Your task to perform on an android device: Toggle the flashlight Image 0: 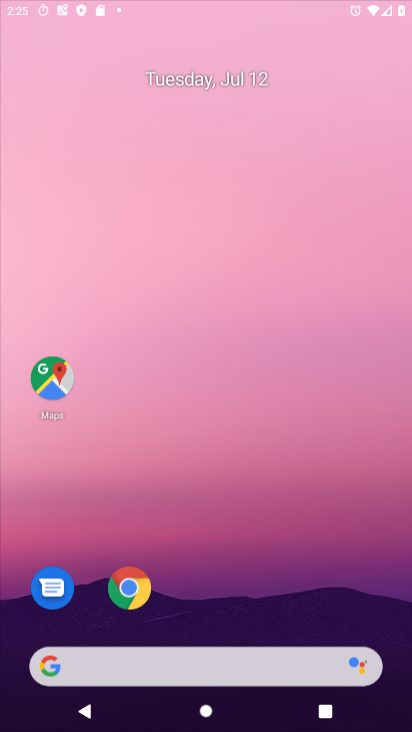
Step 0: click (381, 48)
Your task to perform on an android device: Toggle the flashlight Image 1: 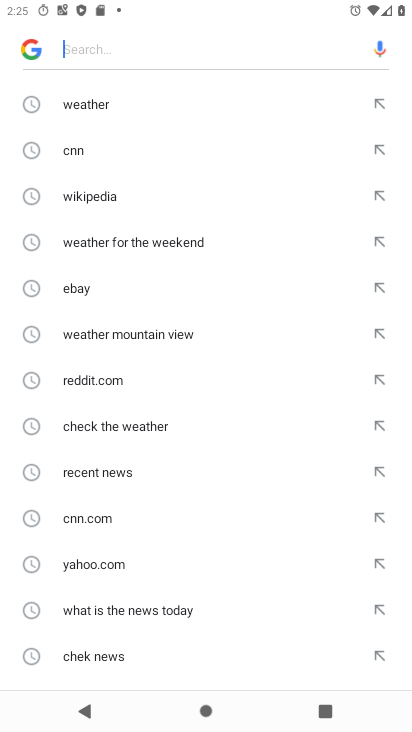
Step 1: drag from (179, 616) to (211, 149)
Your task to perform on an android device: Toggle the flashlight Image 2: 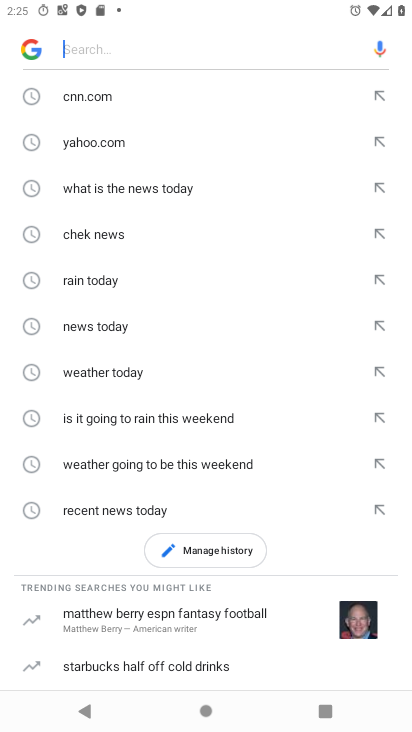
Step 2: press home button
Your task to perform on an android device: Toggle the flashlight Image 3: 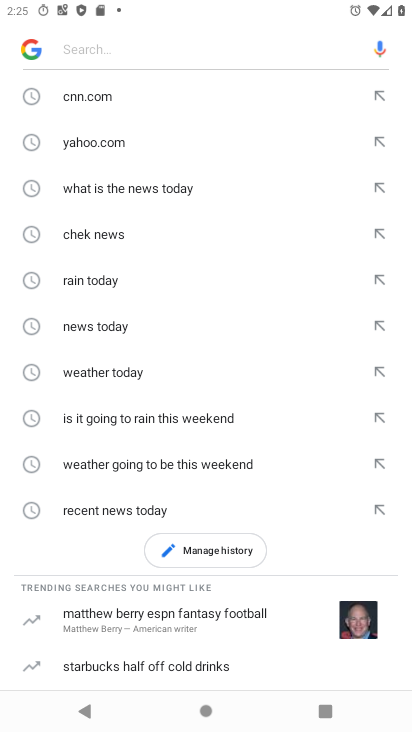
Step 3: drag from (196, 482) to (241, 36)
Your task to perform on an android device: Toggle the flashlight Image 4: 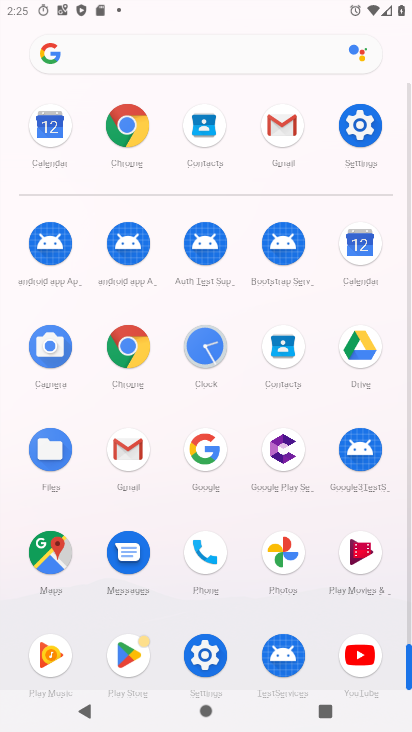
Step 4: click (345, 118)
Your task to perform on an android device: Toggle the flashlight Image 5: 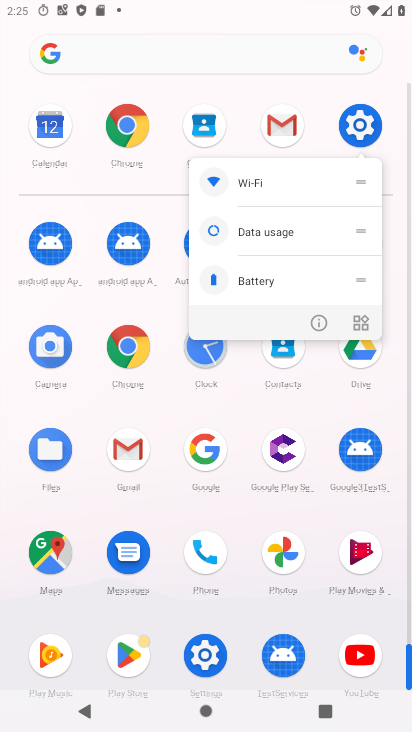
Step 5: click (318, 321)
Your task to perform on an android device: Toggle the flashlight Image 6: 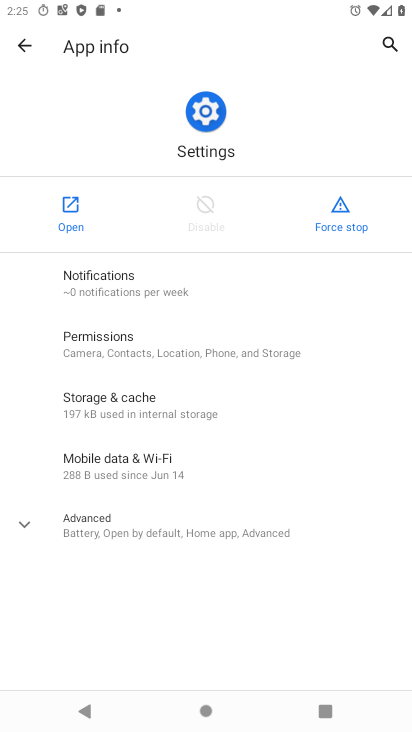
Step 6: click (65, 213)
Your task to perform on an android device: Toggle the flashlight Image 7: 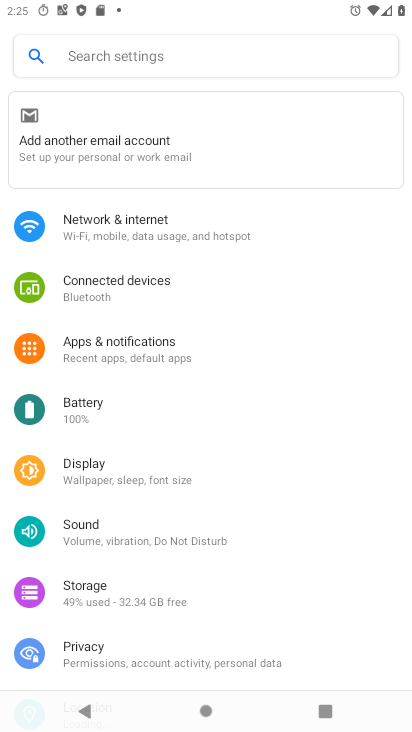
Step 7: click (136, 55)
Your task to perform on an android device: Toggle the flashlight Image 8: 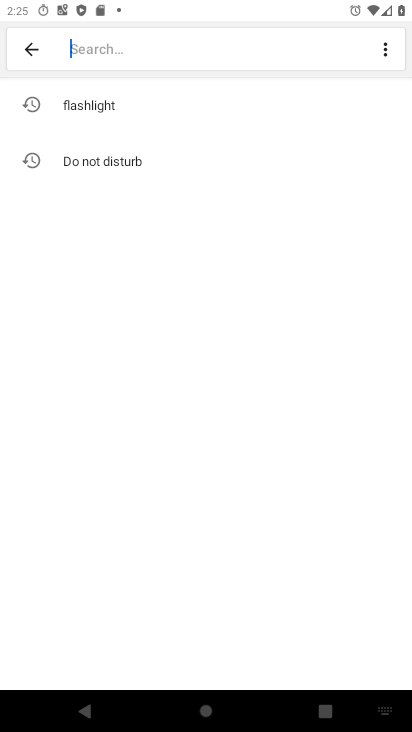
Step 8: click (138, 36)
Your task to perform on an android device: Toggle the flashlight Image 9: 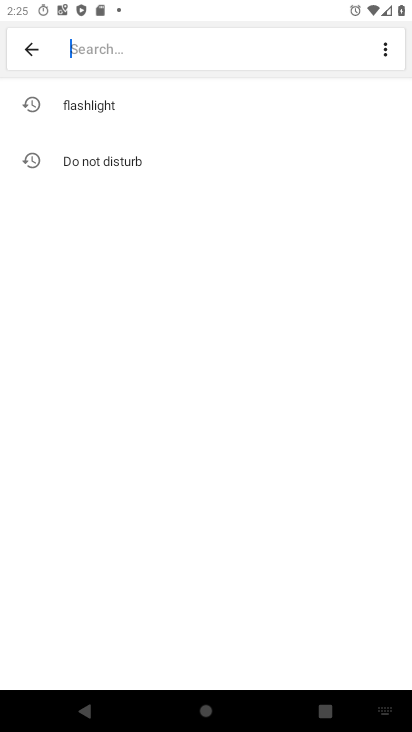
Step 9: click (60, 109)
Your task to perform on an android device: Toggle the flashlight Image 10: 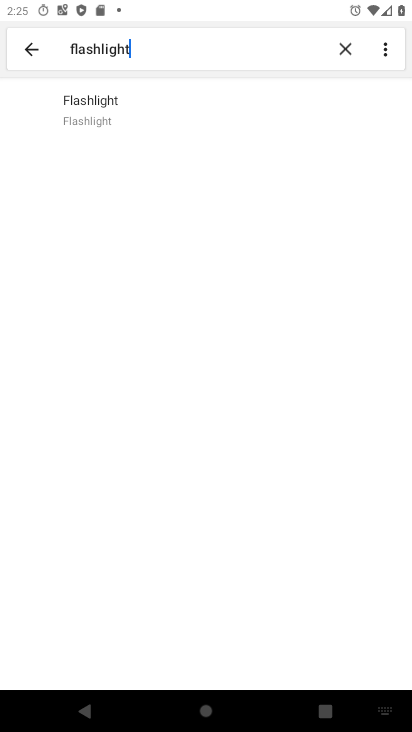
Step 10: click (126, 107)
Your task to perform on an android device: Toggle the flashlight Image 11: 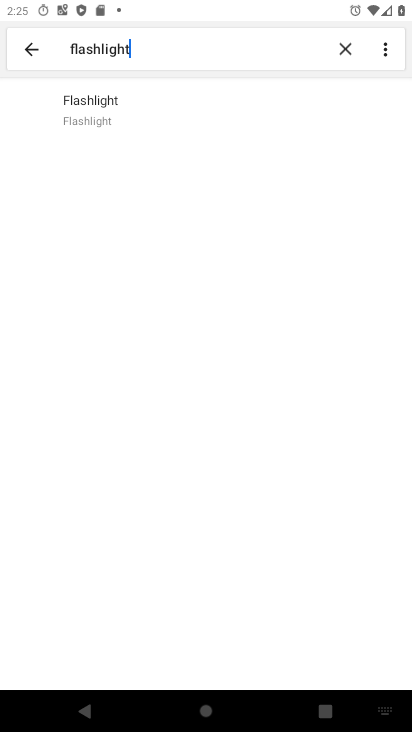
Step 11: drag from (214, 480) to (295, 115)
Your task to perform on an android device: Toggle the flashlight Image 12: 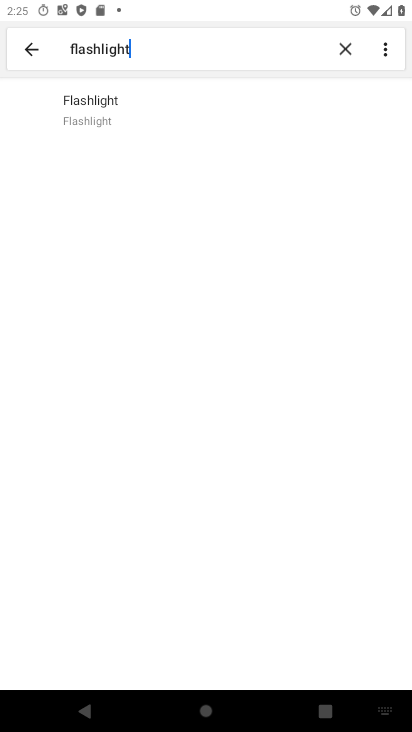
Step 12: click (130, 105)
Your task to perform on an android device: Toggle the flashlight Image 13: 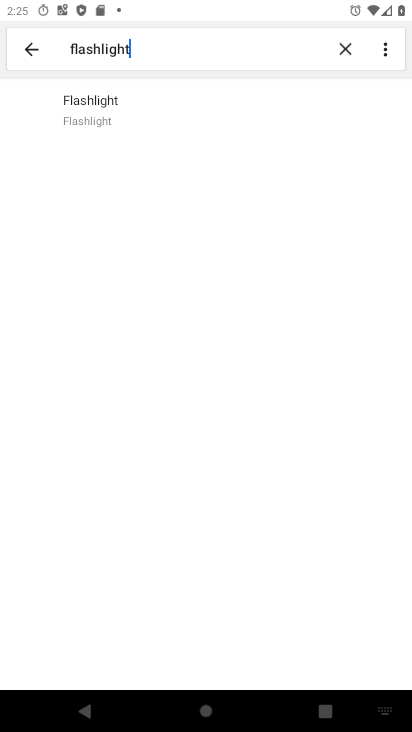
Step 13: task complete